Your task to perform on an android device: Open calendar and show me the first week of next month Image 0: 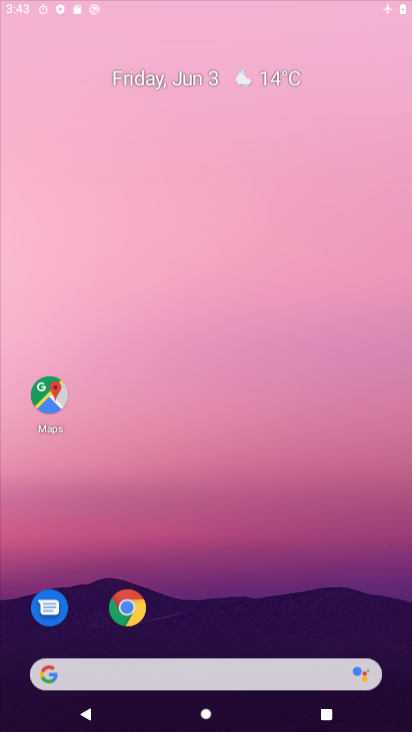
Step 0: click (146, 283)
Your task to perform on an android device: Open calendar and show me the first week of next month Image 1: 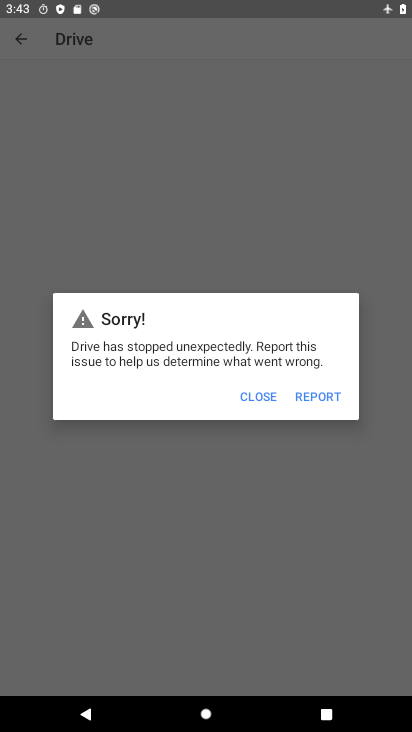
Step 1: drag from (191, 659) to (188, 230)
Your task to perform on an android device: Open calendar and show me the first week of next month Image 2: 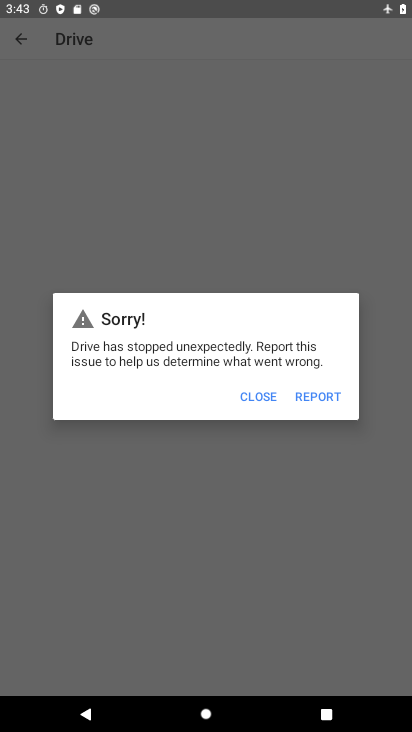
Step 2: press home button
Your task to perform on an android device: Open calendar and show me the first week of next month Image 3: 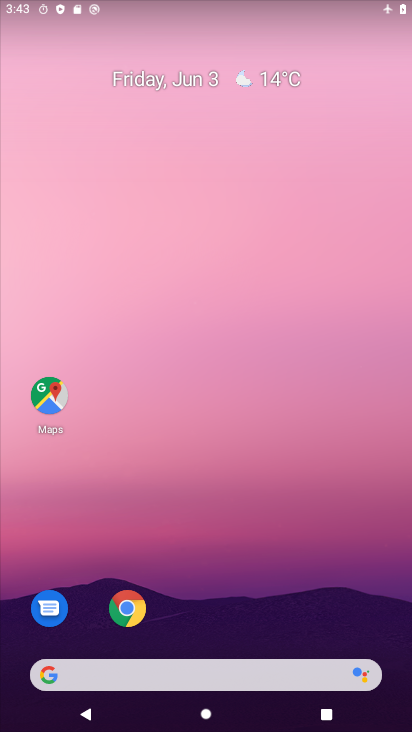
Step 3: drag from (187, 667) to (172, 329)
Your task to perform on an android device: Open calendar and show me the first week of next month Image 4: 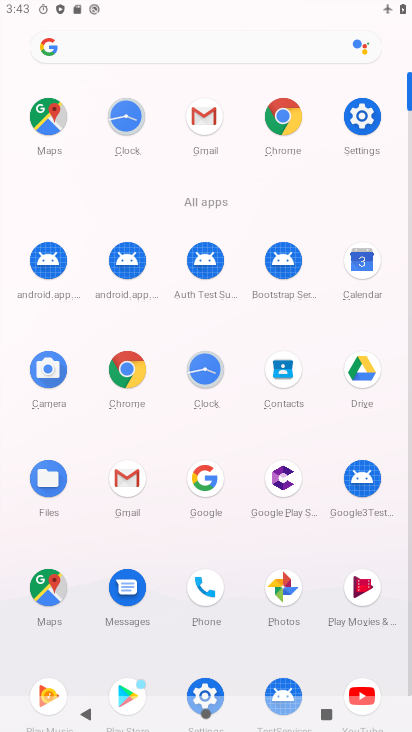
Step 4: click (363, 269)
Your task to perform on an android device: Open calendar and show me the first week of next month Image 5: 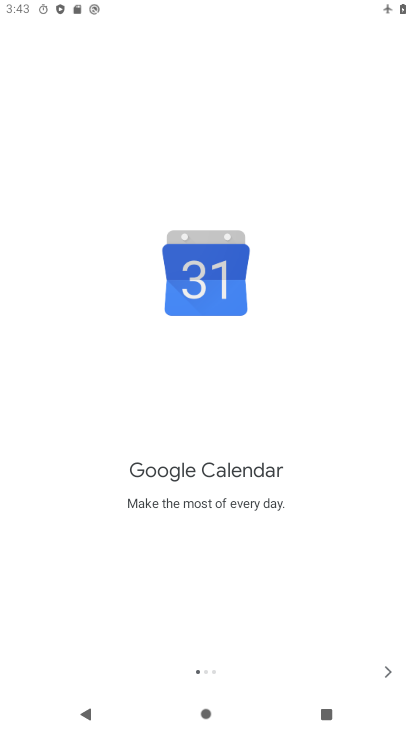
Step 5: click (387, 675)
Your task to perform on an android device: Open calendar and show me the first week of next month Image 6: 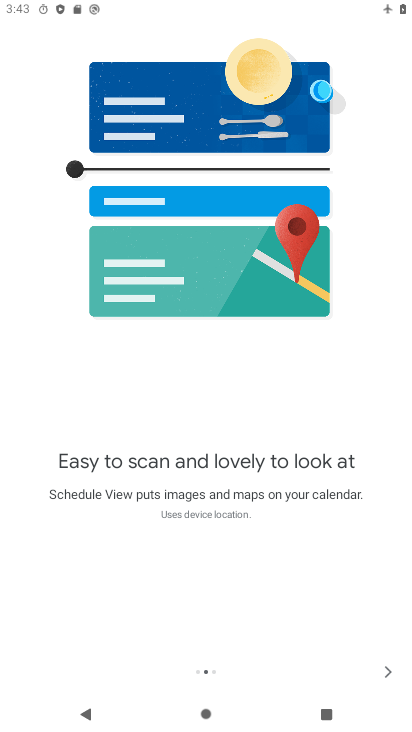
Step 6: click (387, 675)
Your task to perform on an android device: Open calendar and show me the first week of next month Image 7: 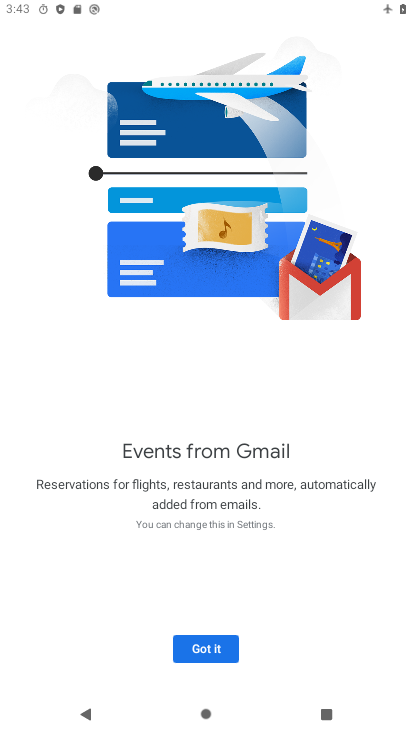
Step 7: click (218, 646)
Your task to perform on an android device: Open calendar and show me the first week of next month Image 8: 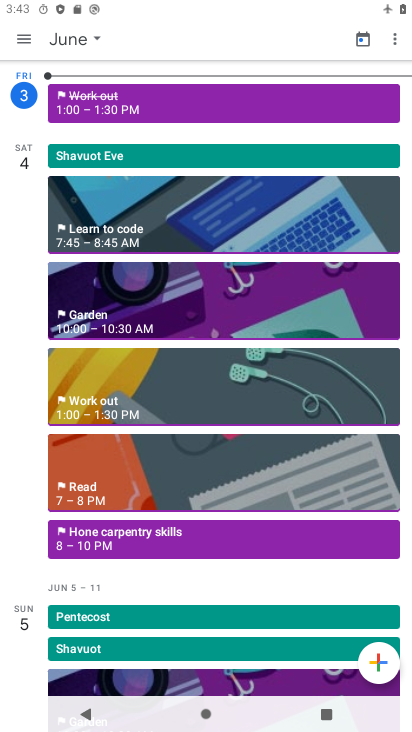
Step 8: click (19, 36)
Your task to perform on an android device: Open calendar and show me the first week of next month Image 9: 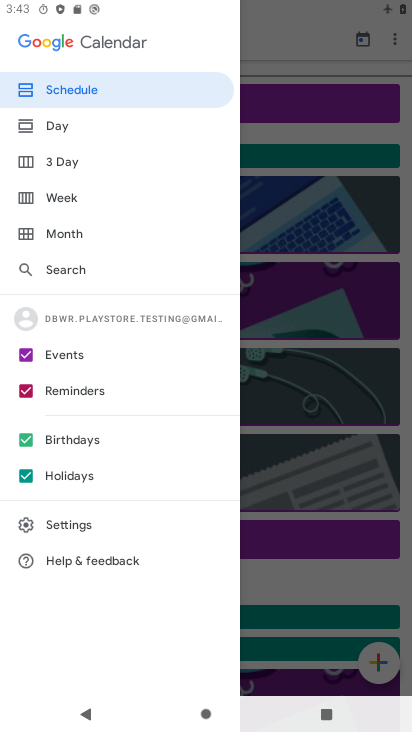
Step 9: click (280, 237)
Your task to perform on an android device: Open calendar and show me the first week of next month Image 10: 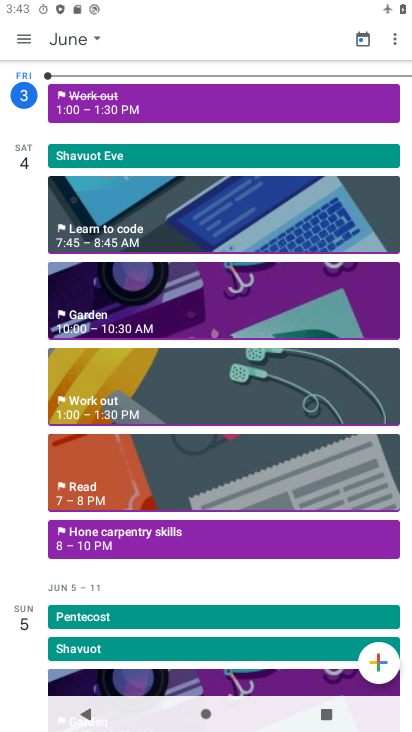
Step 10: click (71, 33)
Your task to perform on an android device: Open calendar and show me the first week of next month Image 11: 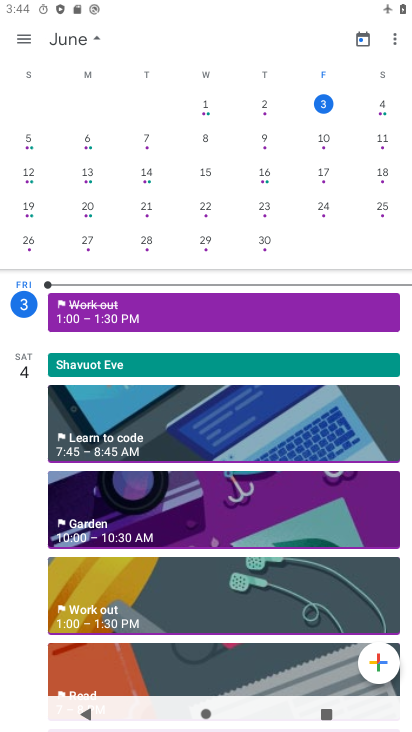
Step 11: drag from (355, 202) to (21, 208)
Your task to perform on an android device: Open calendar and show me the first week of next month Image 12: 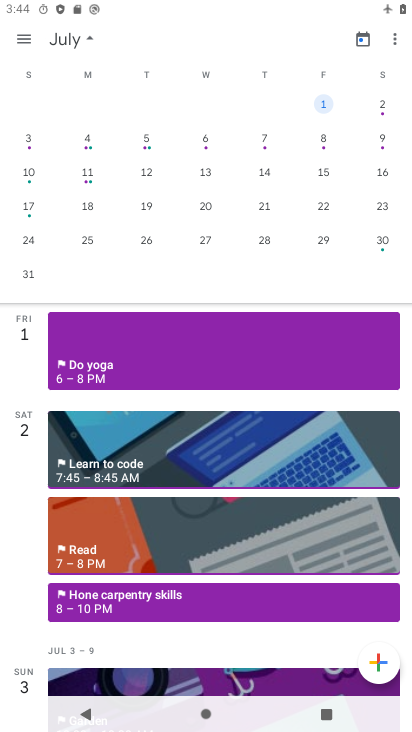
Step 12: drag from (388, 198) to (18, 235)
Your task to perform on an android device: Open calendar and show me the first week of next month Image 13: 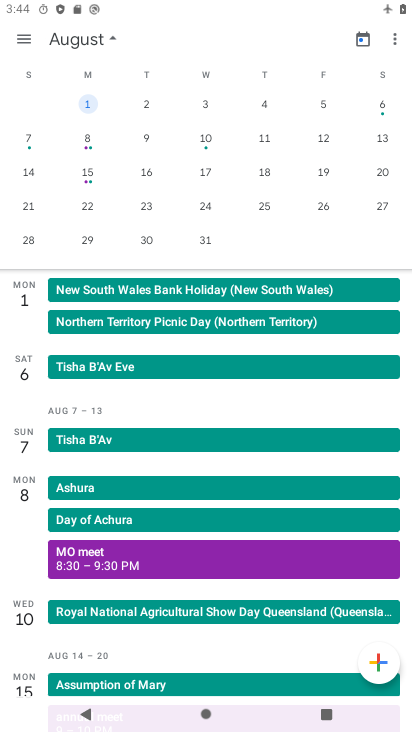
Step 13: click (328, 164)
Your task to perform on an android device: Open calendar and show me the first week of next month Image 14: 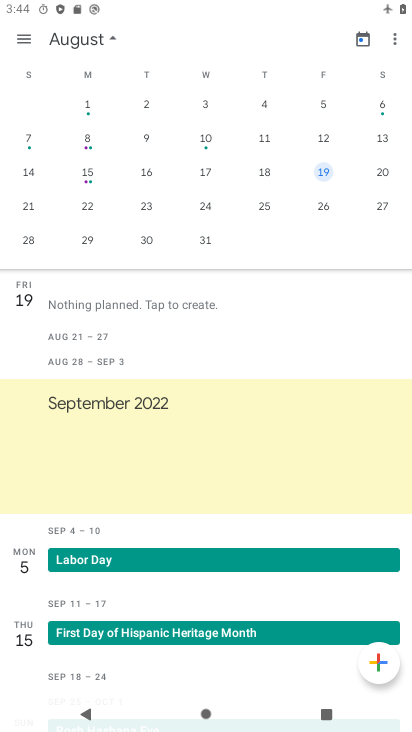
Step 14: drag from (38, 154) to (328, 135)
Your task to perform on an android device: Open calendar and show me the first week of next month Image 15: 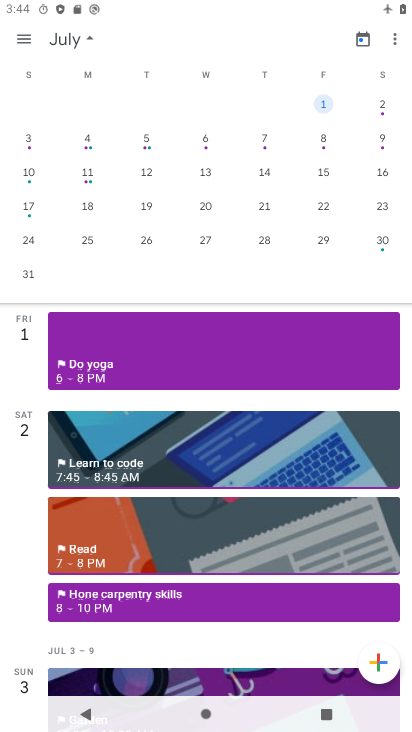
Step 15: click (317, 104)
Your task to perform on an android device: Open calendar and show me the first week of next month Image 16: 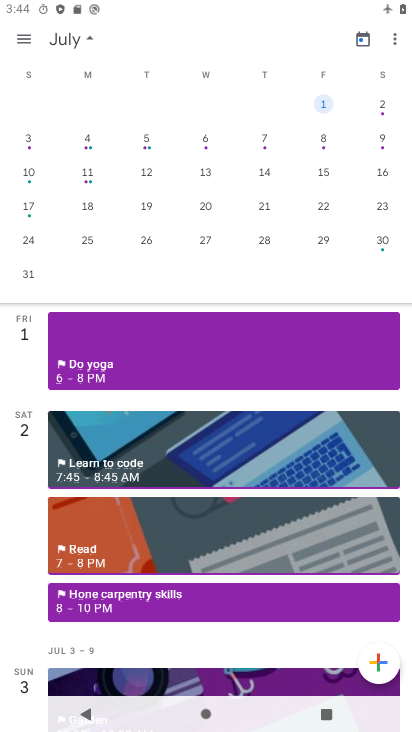
Step 16: task complete